Your task to perform on an android device: Find coffee shops on Maps Image 0: 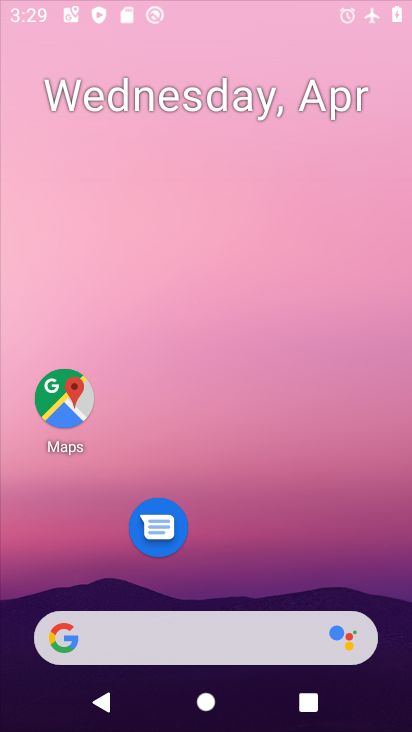
Step 0: drag from (223, 371) to (260, 10)
Your task to perform on an android device: Find coffee shops on Maps Image 1: 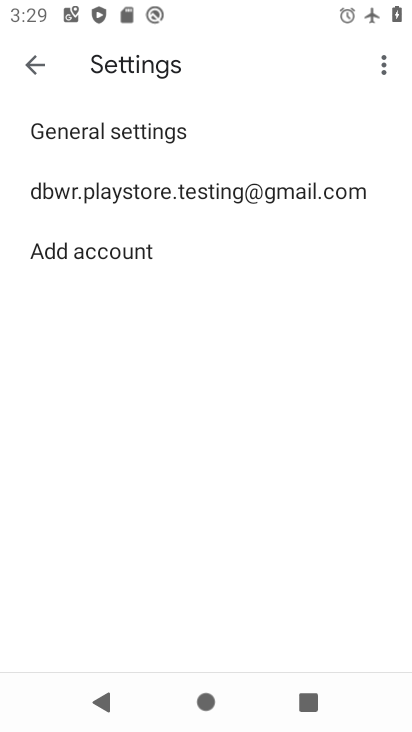
Step 1: press home button
Your task to perform on an android device: Find coffee shops on Maps Image 2: 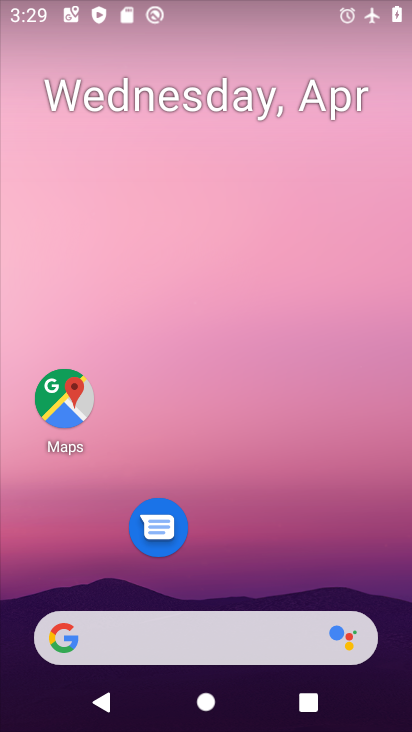
Step 2: drag from (203, 548) to (203, 600)
Your task to perform on an android device: Find coffee shops on Maps Image 3: 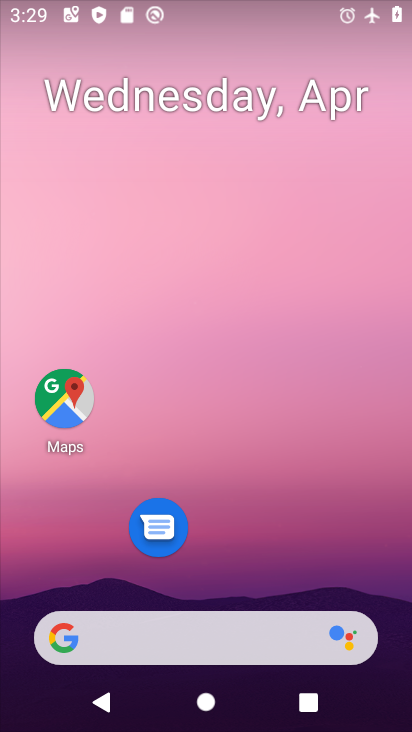
Step 3: click (63, 404)
Your task to perform on an android device: Find coffee shops on Maps Image 4: 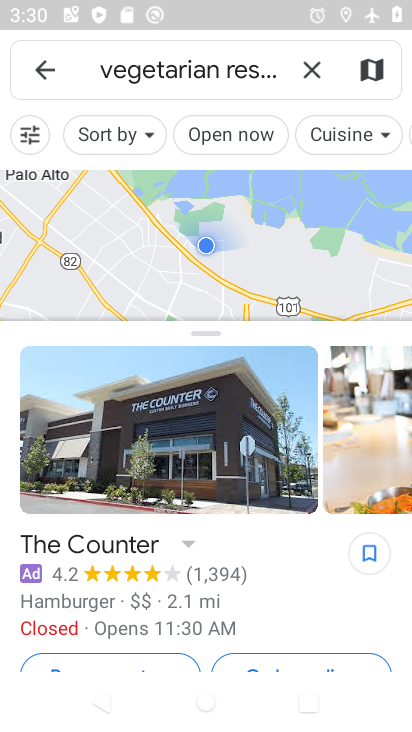
Step 4: click (317, 73)
Your task to perform on an android device: Find coffee shops on Maps Image 5: 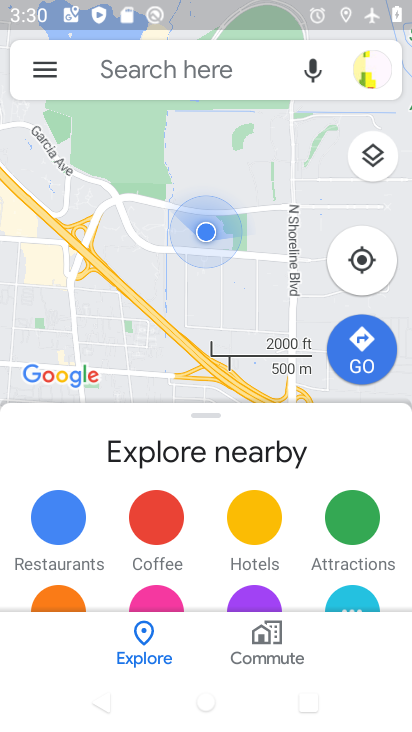
Step 5: click (177, 78)
Your task to perform on an android device: Find coffee shops on Maps Image 6: 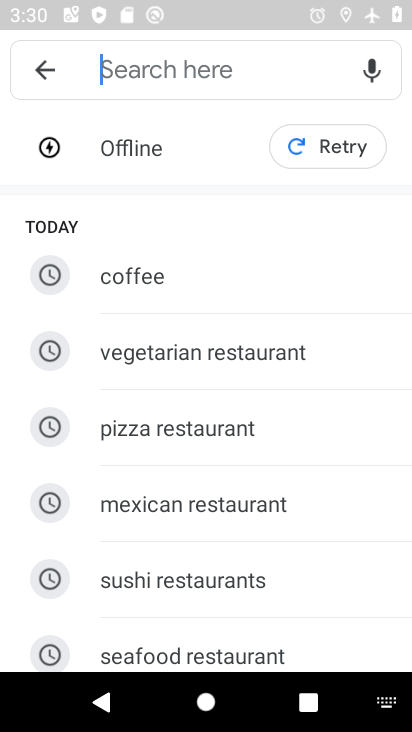
Step 6: type "coffee shops"
Your task to perform on an android device: Find coffee shops on Maps Image 7: 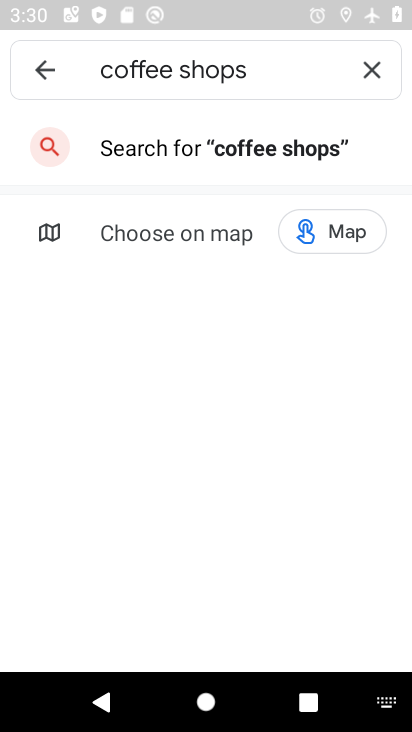
Step 7: click (330, 214)
Your task to perform on an android device: Find coffee shops on Maps Image 8: 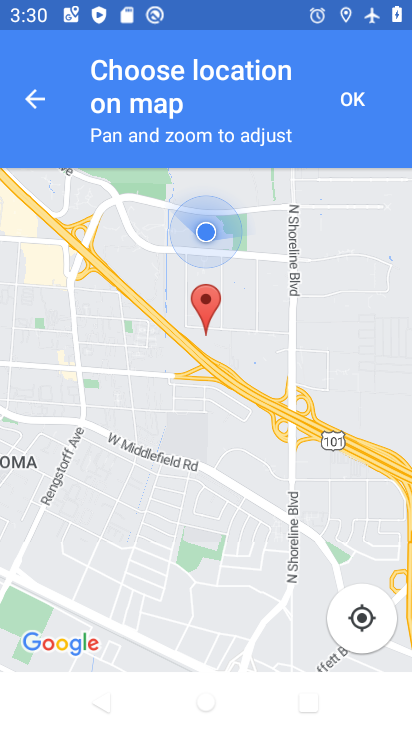
Step 8: click (352, 91)
Your task to perform on an android device: Find coffee shops on Maps Image 9: 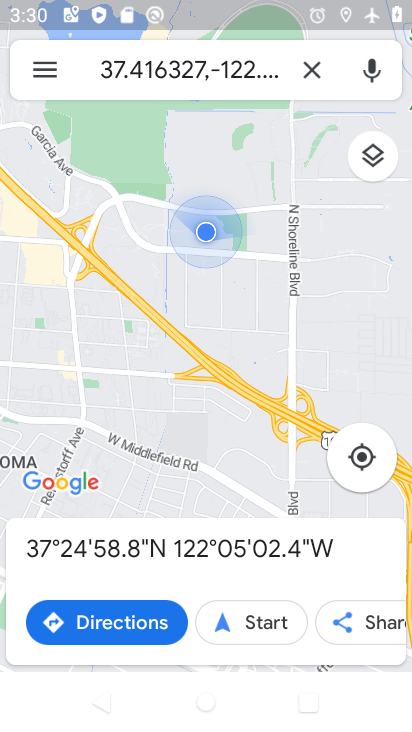
Step 9: task complete